Your task to perform on an android device: What is the recent news? Image 0: 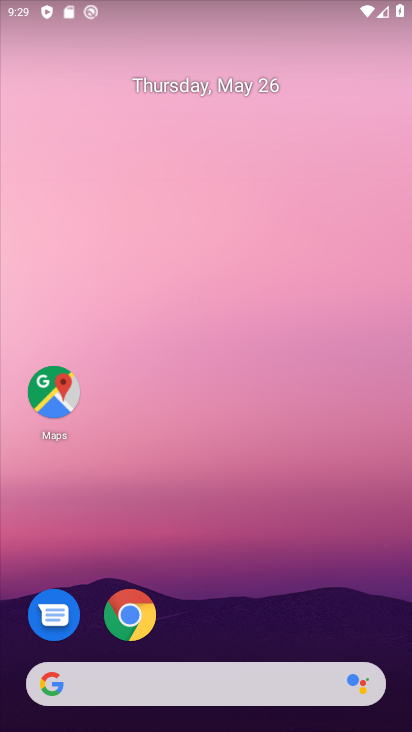
Step 0: click (218, 686)
Your task to perform on an android device: What is the recent news? Image 1: 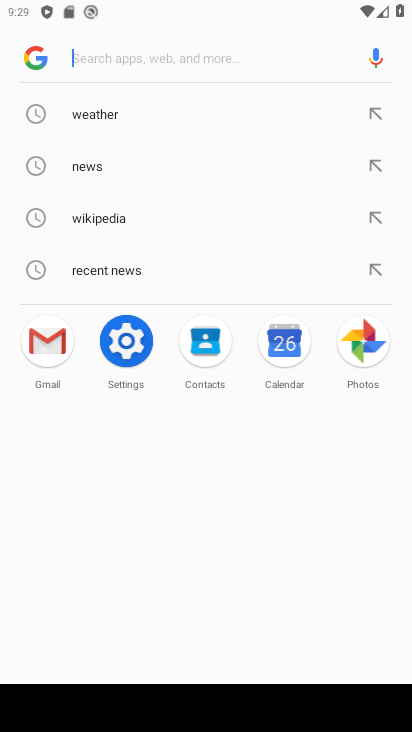
Step 1: click (165, 279)
Your task to perform on an android device: What is the recent news? Image 2: 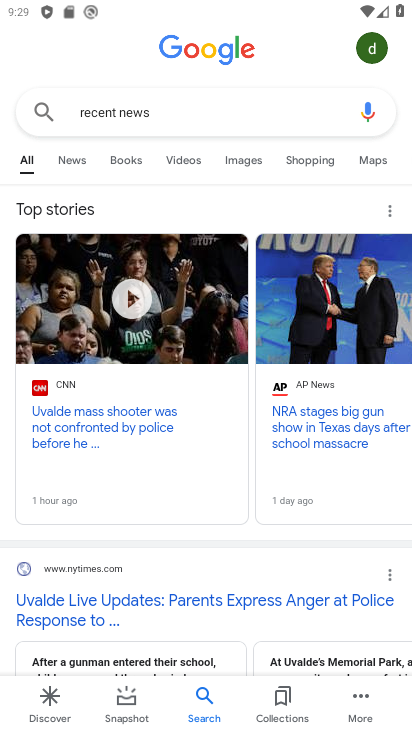
Step 2: task complete